Your task to perform on an android device: Add corsair k70 to the cart on walmart.com, then select checkout. Image 0: 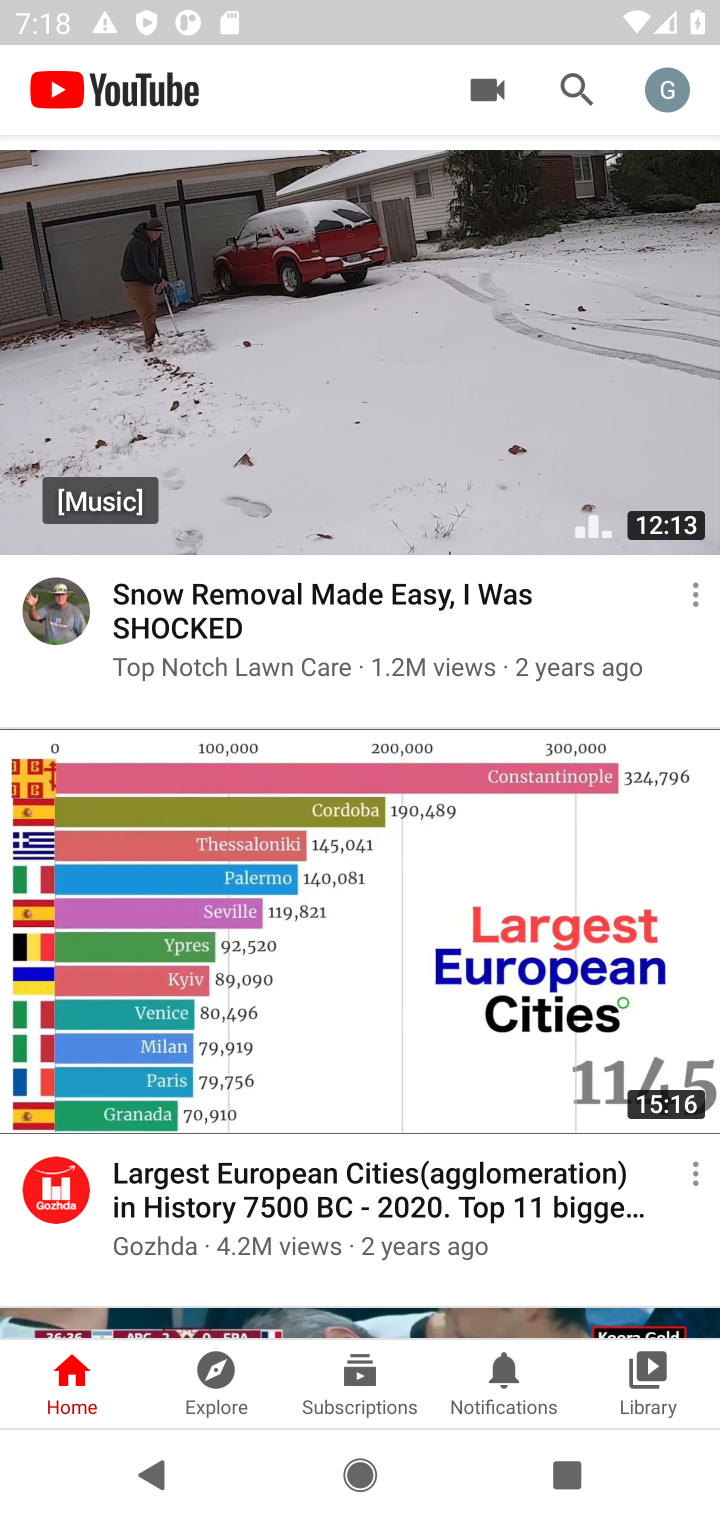
Step 0: press home button
Your task to perform on an android device: Add corsair k70 to the cart on walmart.com, then select checkout. Image 1: 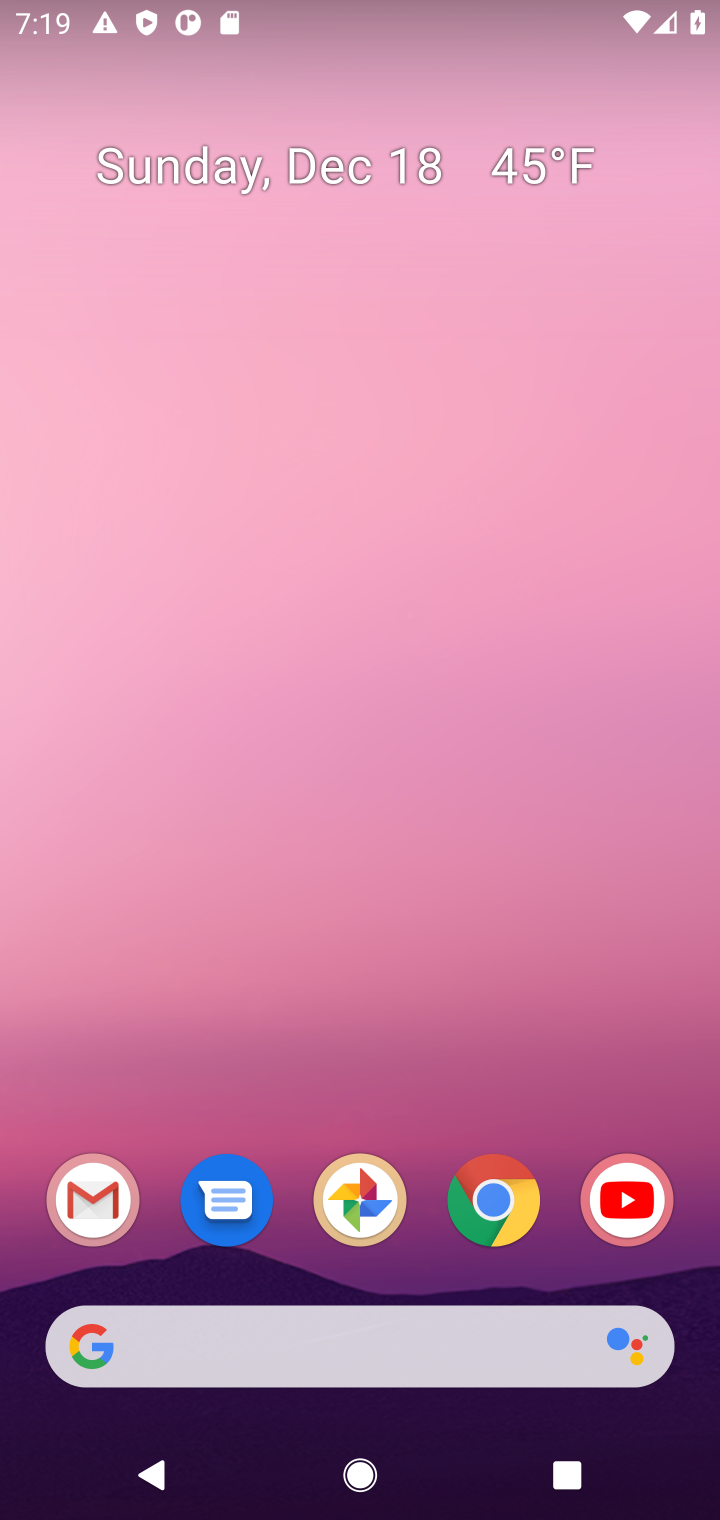
Step 1: click (502, 1210)
Your task to perform on an android device: Add corsair k70 to the cart on walmart.com, then select checkout. Image 2: 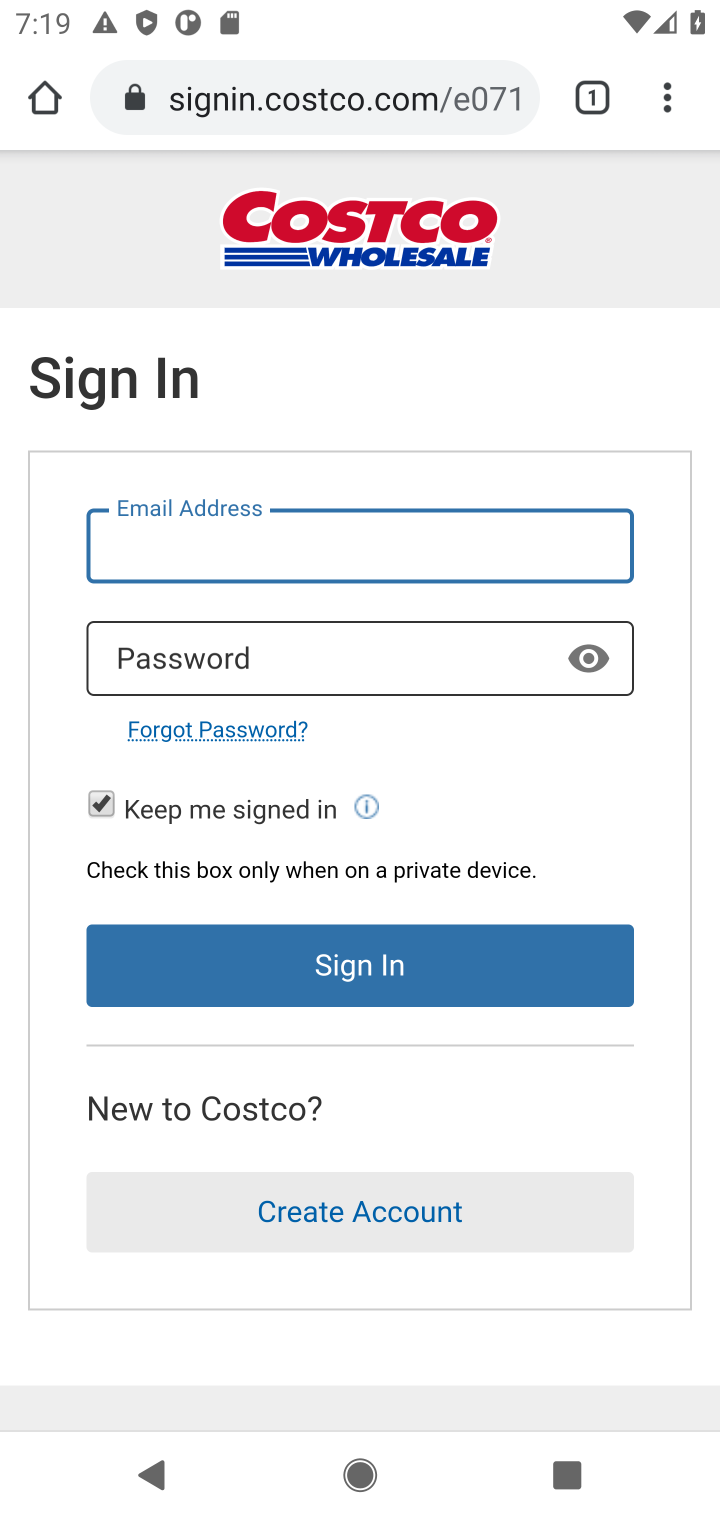
Step 2: click (291, 98)
Your task to perform on an android device: Add corsair k70 to the cart on walmart.com, then select checkout. Image 3: 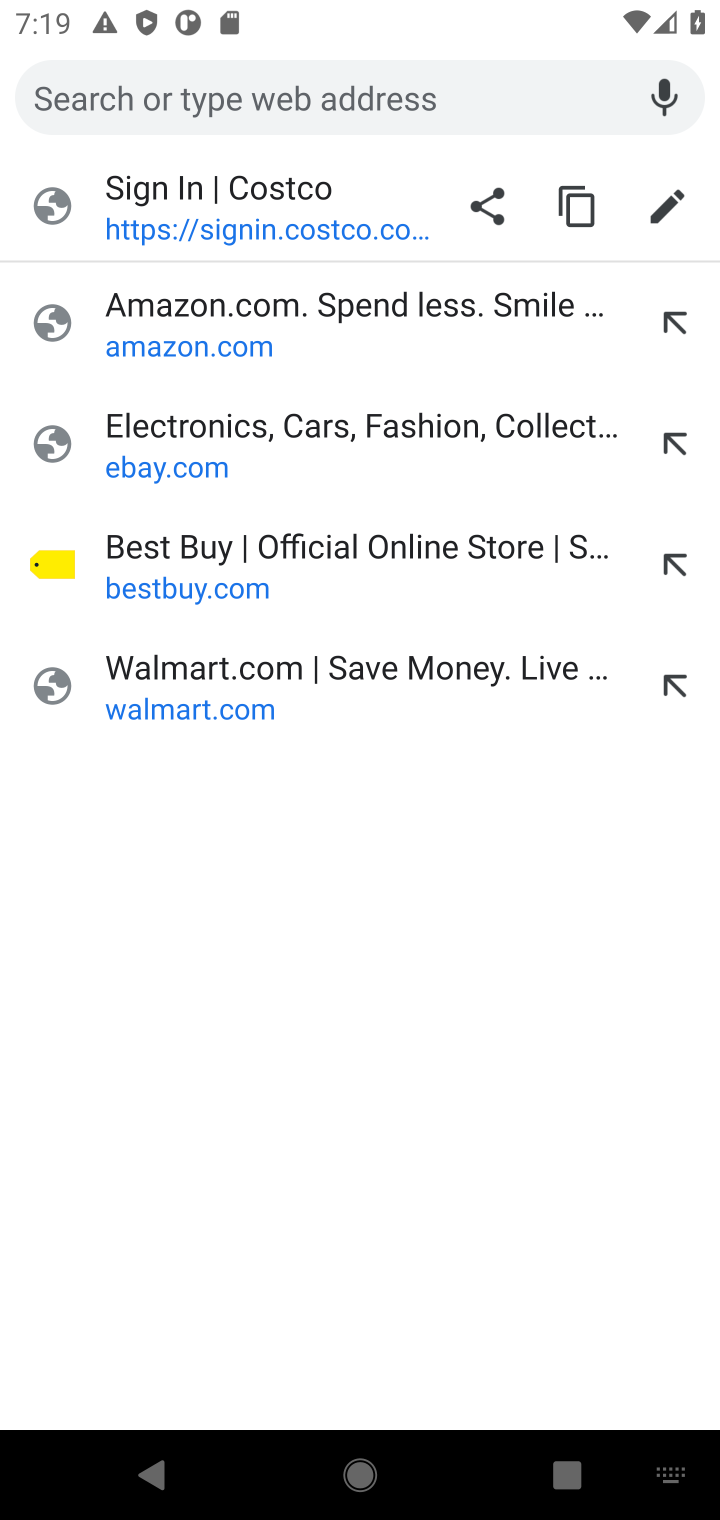
Step 3: click (168, 693)
Your task to perform on an android device: Add corsair k70 to the cart on walmart.com, then select checkout. Image 4: 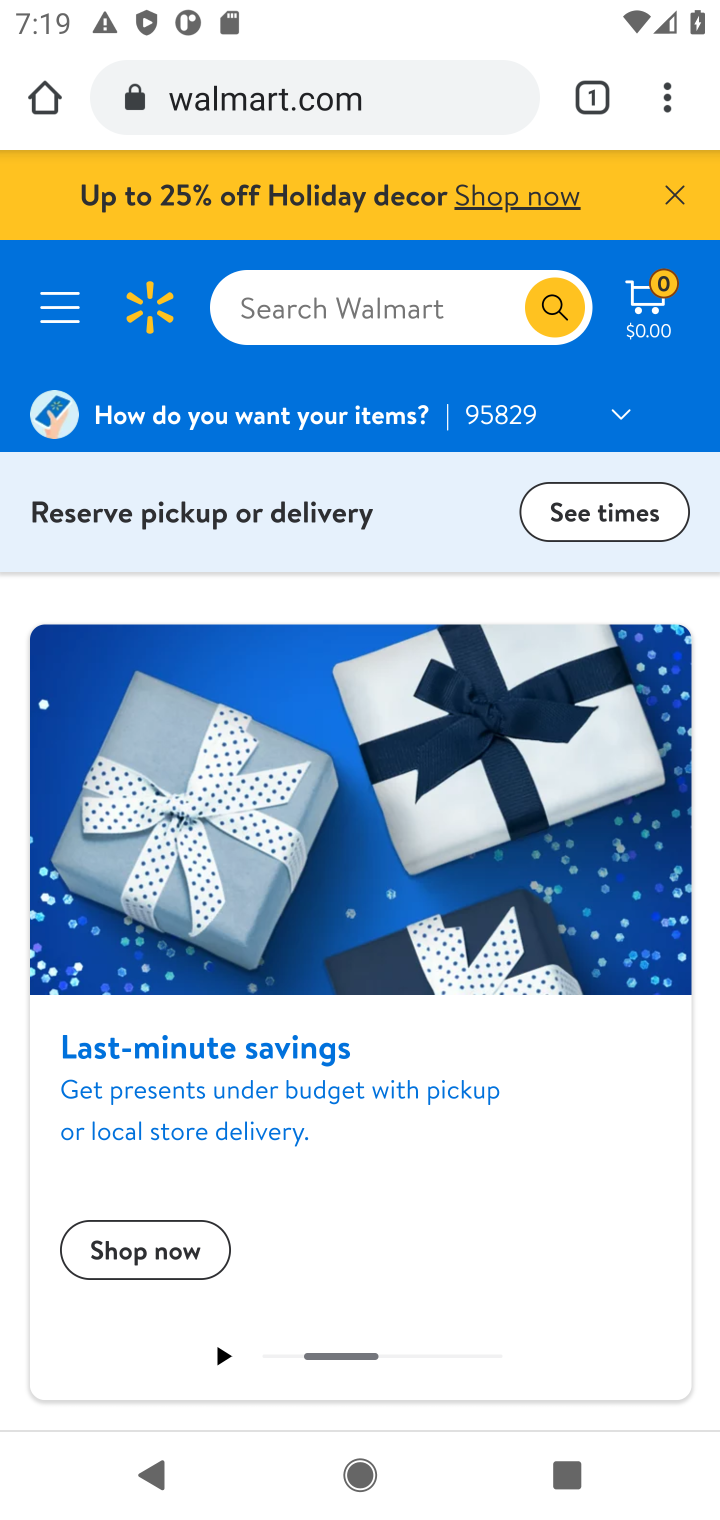
Step 4: click (306, 324)
Your task to perform on an android device: Add corsair k70 to the cart on walmart.com, then select checkout. Image 5: 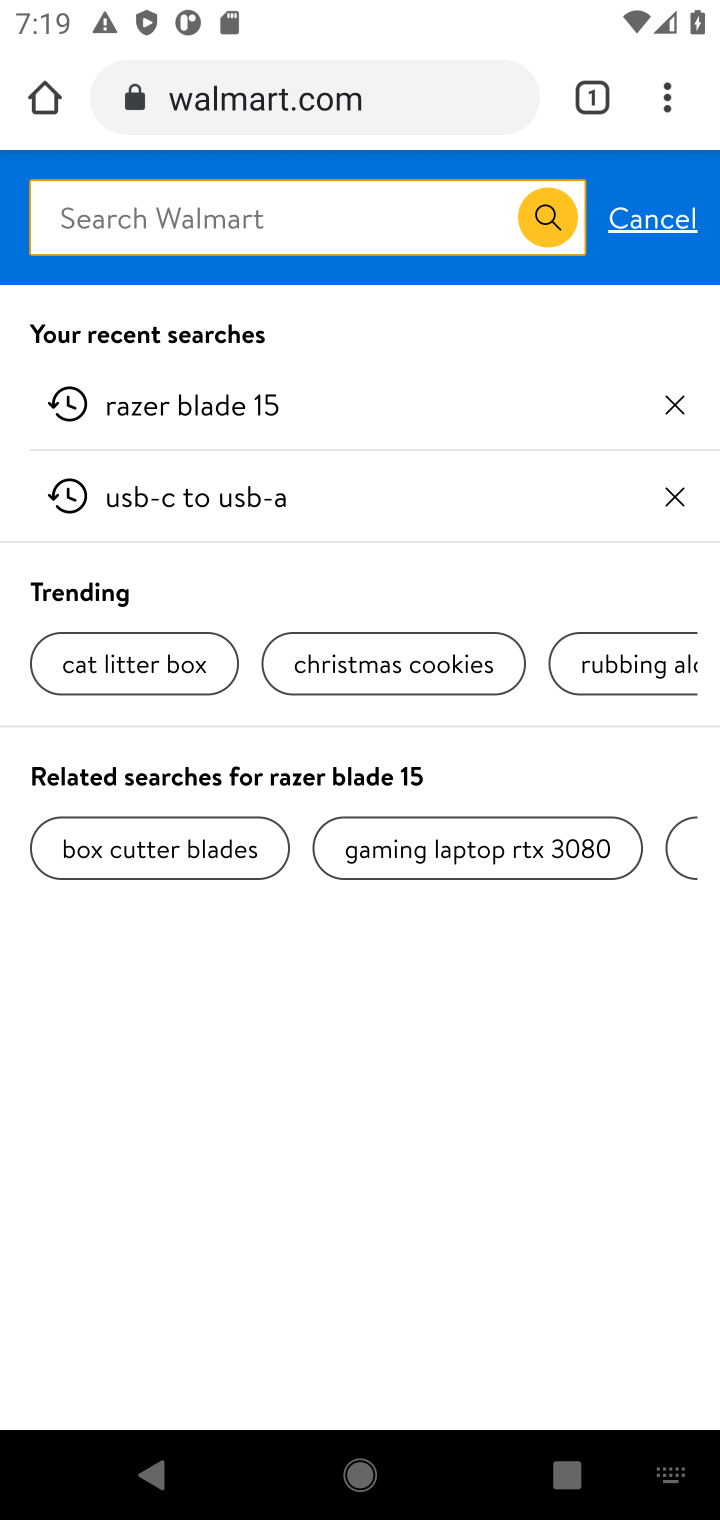
Step 5: type "corsair k70"
Your task to perform on an android device: Add corsair k70 to the cart on walmart.com, then select checkout. Image 6: 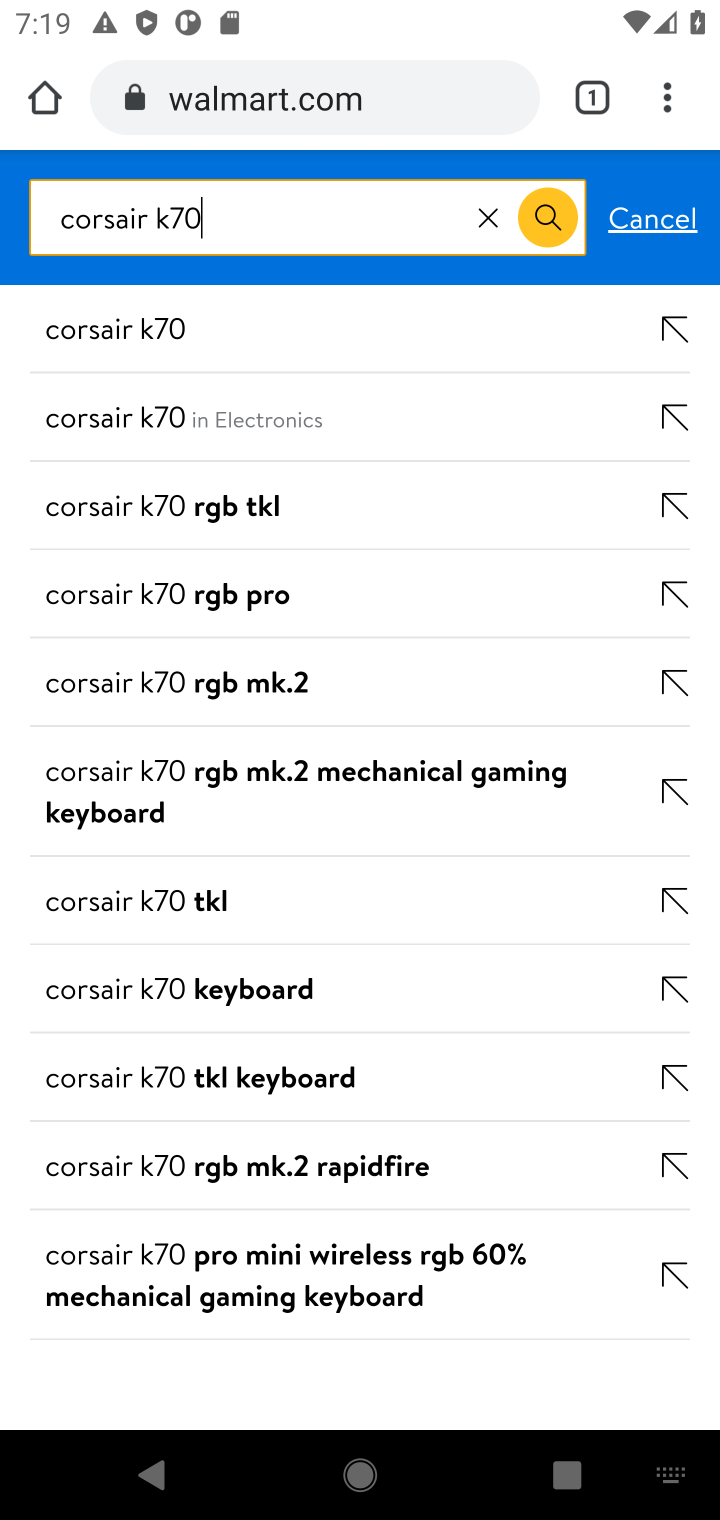
Step 6: click (132, 319)
Your task to perform on an android device: Add corsair k70 to the cart on walmart.com, then select checkout. Image 7: 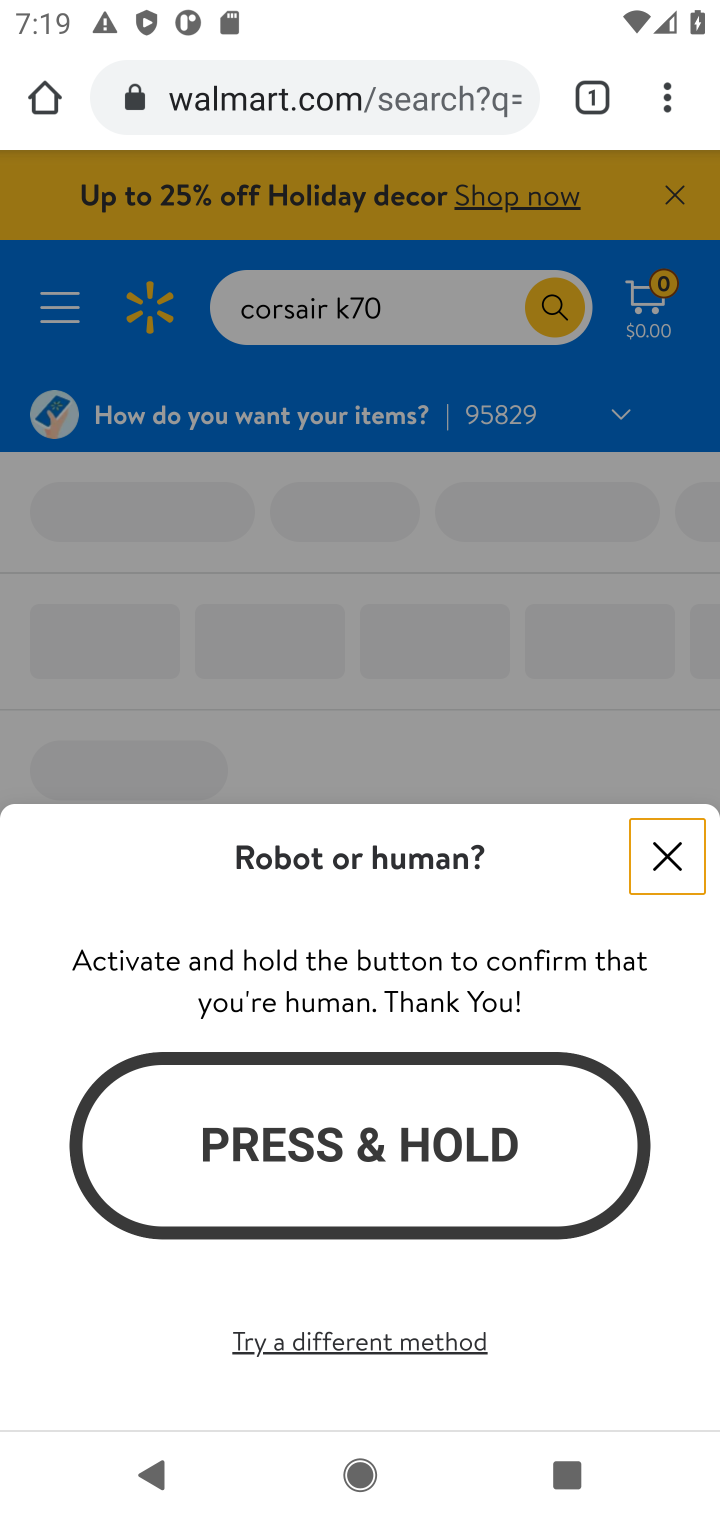
Step 7: click (319, 1344)
Your task to perform on an android device: Add corsair k70 to the cart on walmart.com, then select checkout. Image 8: 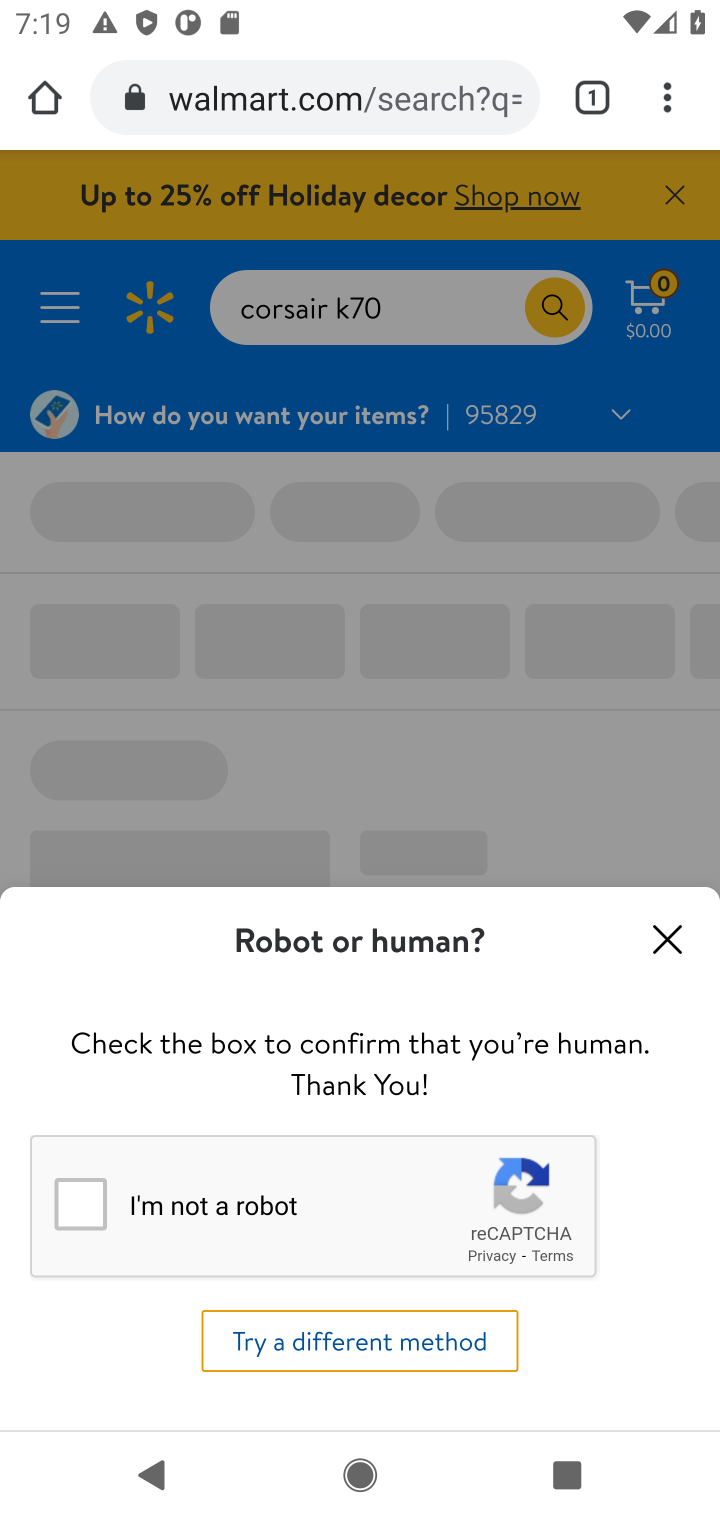
Step 8: click (85, 1211)
Your task to perform on an android device: Add corsair k70 to the cart on walmart.com, then select checkout. Image 9: 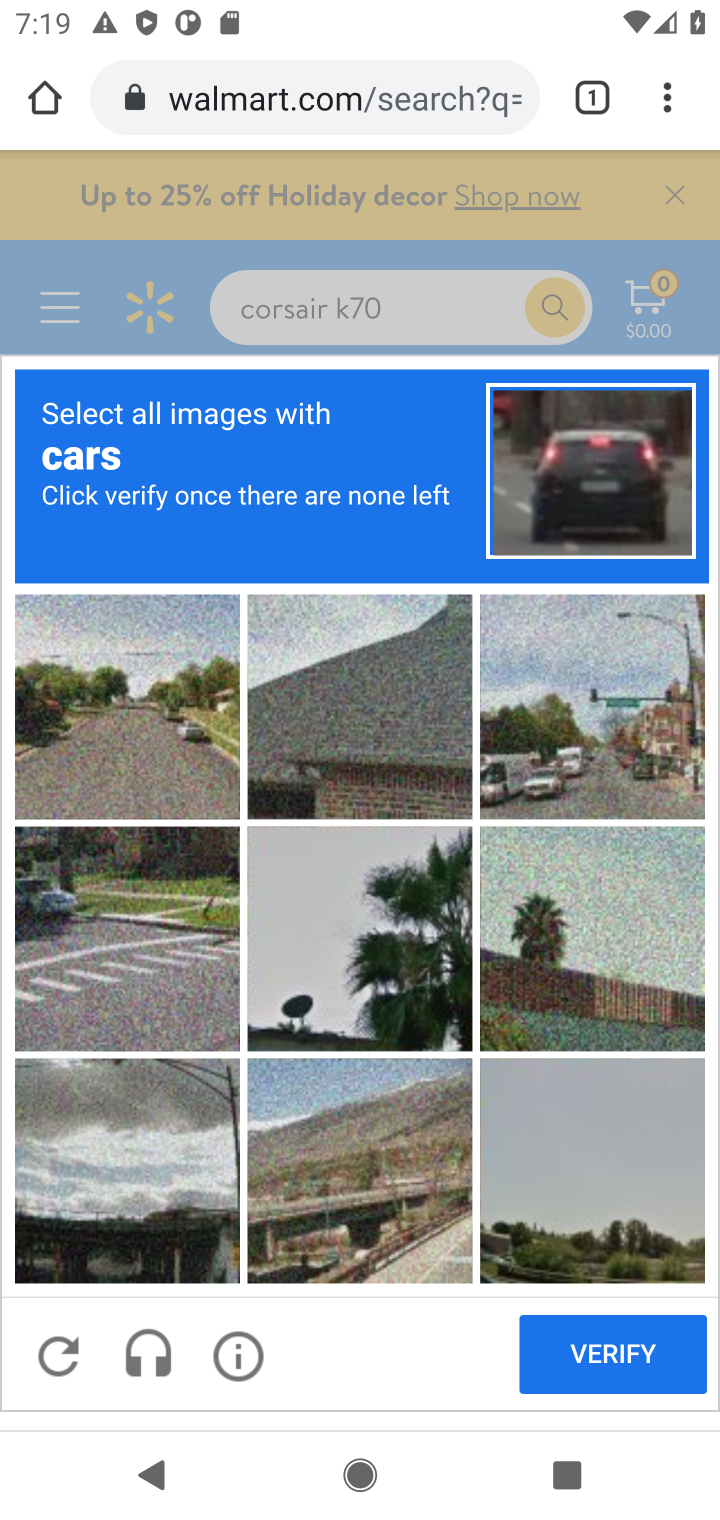
Step 9: click (125, 714)
Your task to perform on an android device: Add corsair k70 to the cart on walmart.com, then select checkout. Image 10: 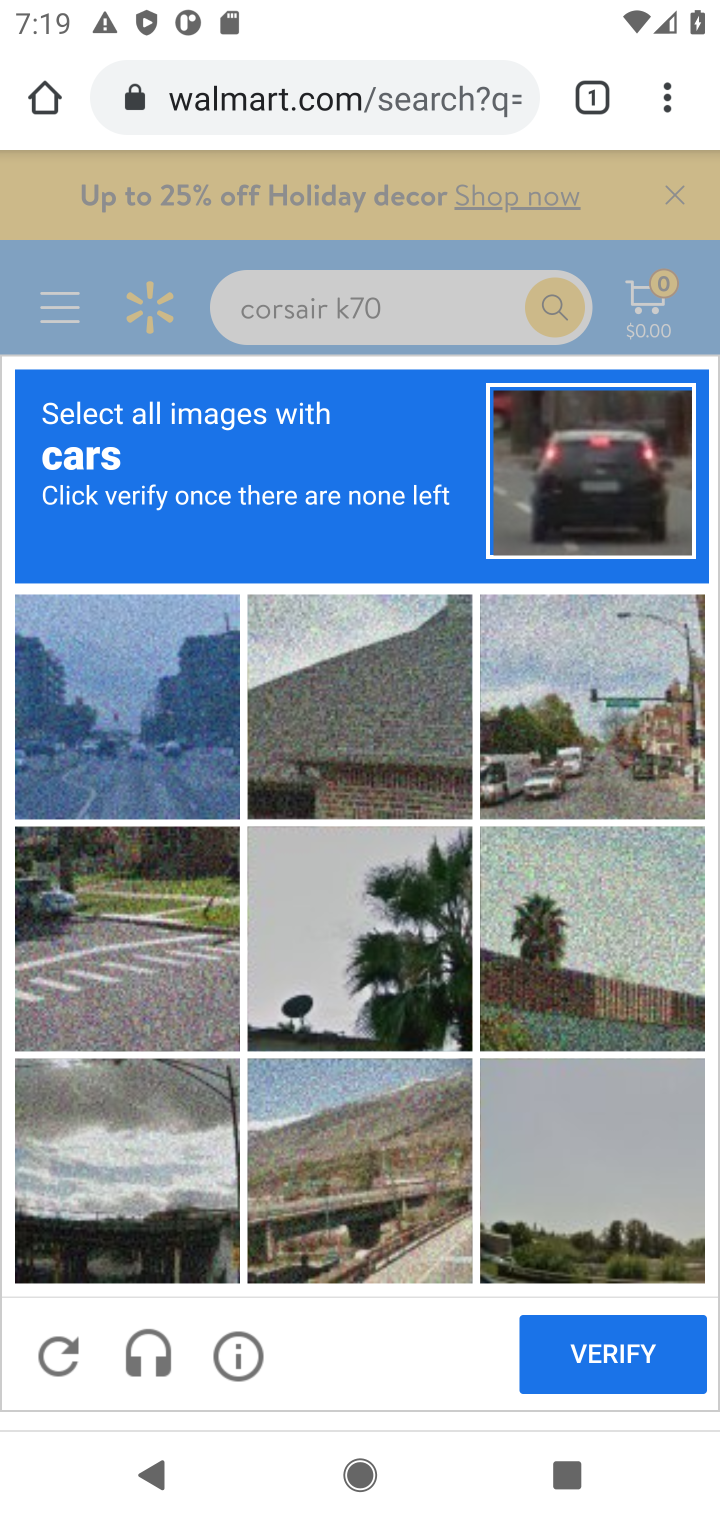
Step 10: click (578, 783)
Your task to perform on an android device: Add corsair k70 to the cart on walmart.com, then select checkout. Image 11: 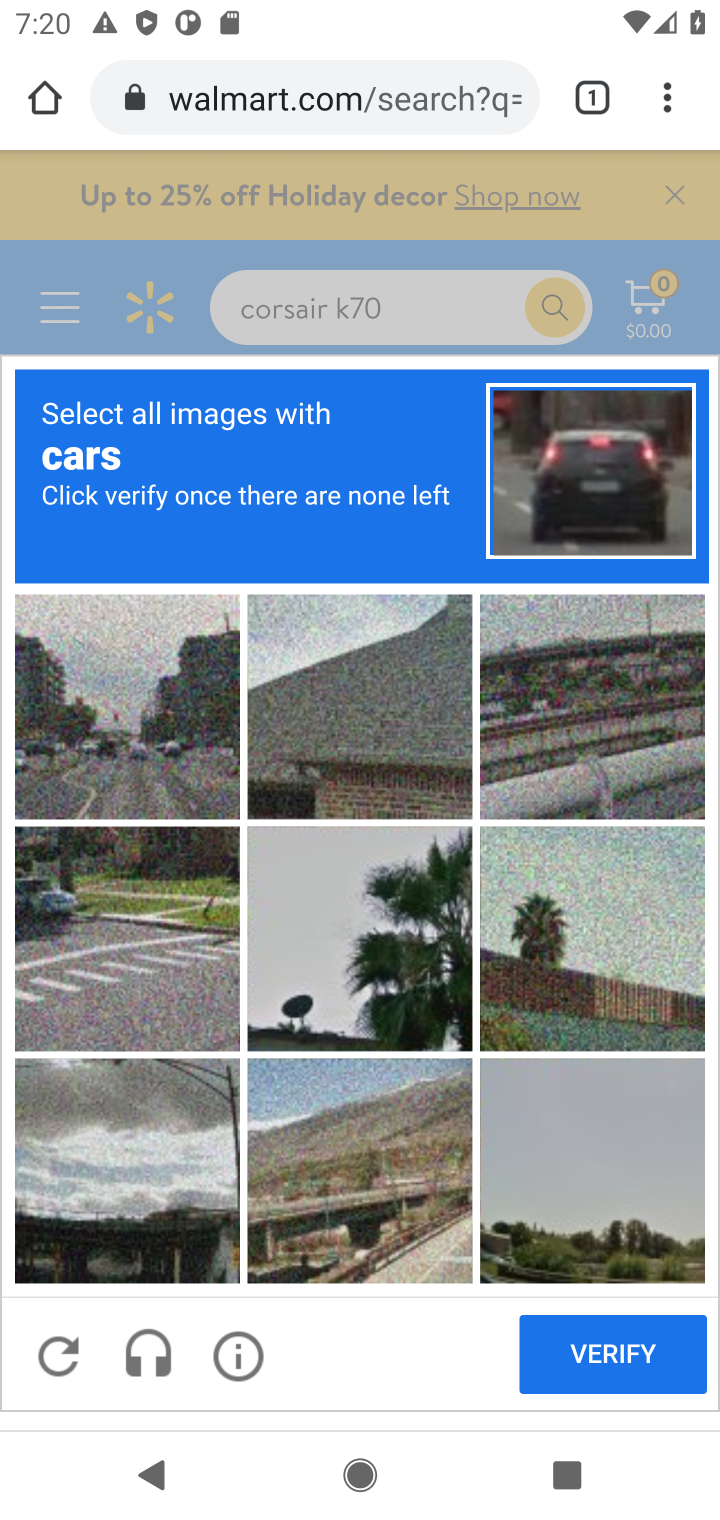
Step 11: click (87, 1002)
Your task to perform on an android device: Add corsair k70 to the cart on walmart.com, then select checkout. Image 12: 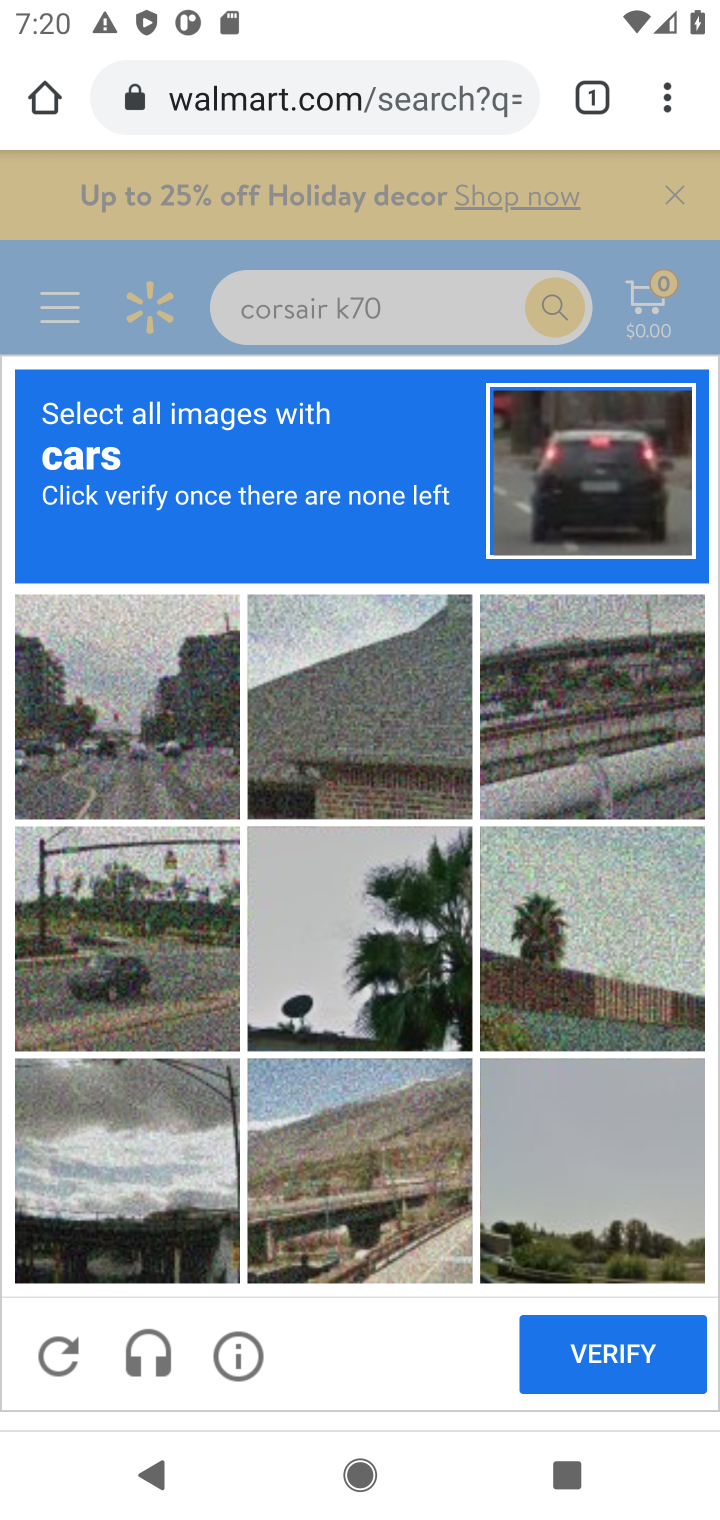
Step 12: click (100, 719)
Your task to perform on an android device: Add corsair k70 to the cart on walmart.com, then select checkout. Image 13: 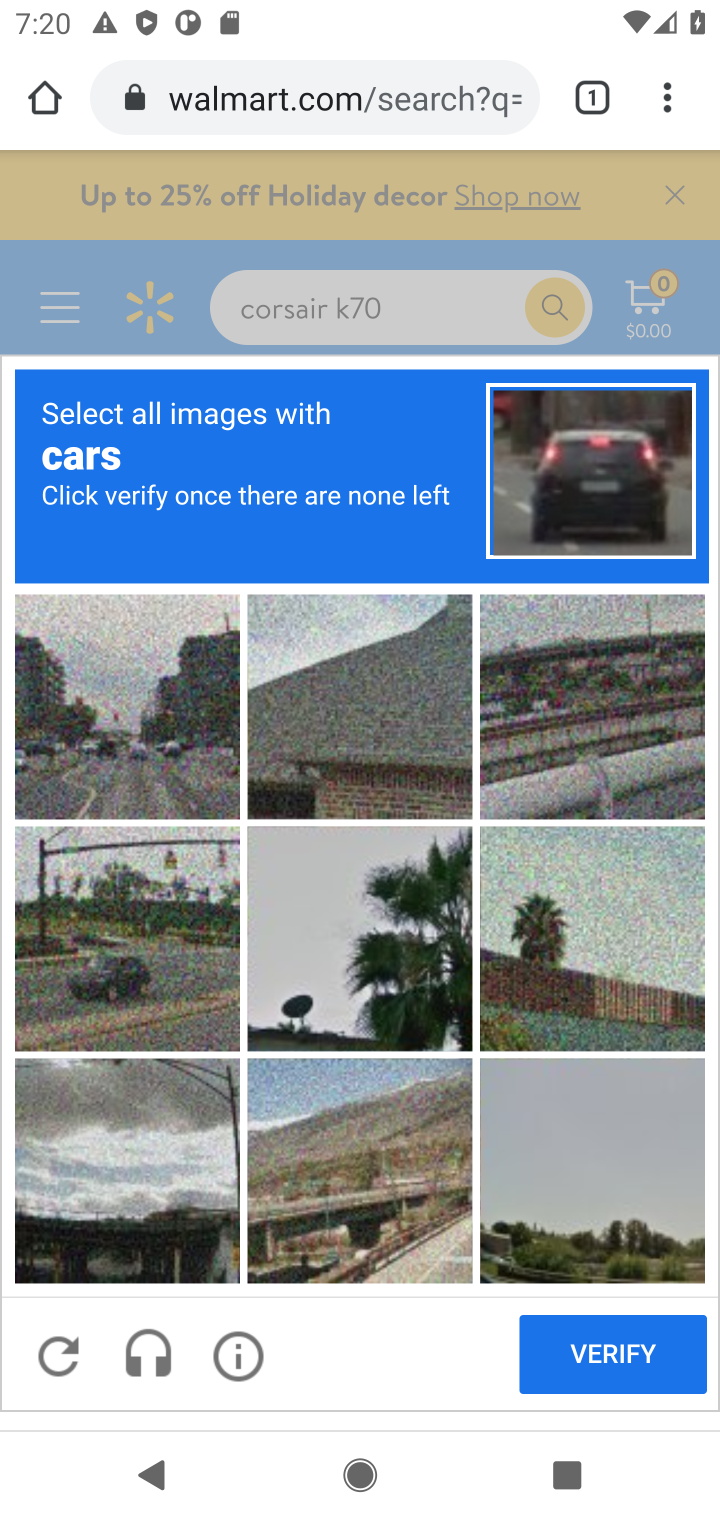
Step 13: click (125, 780)
Your task to perform on an android device: Add corsair k70 to the cart on walmart.com, then select checkout. Image 14: 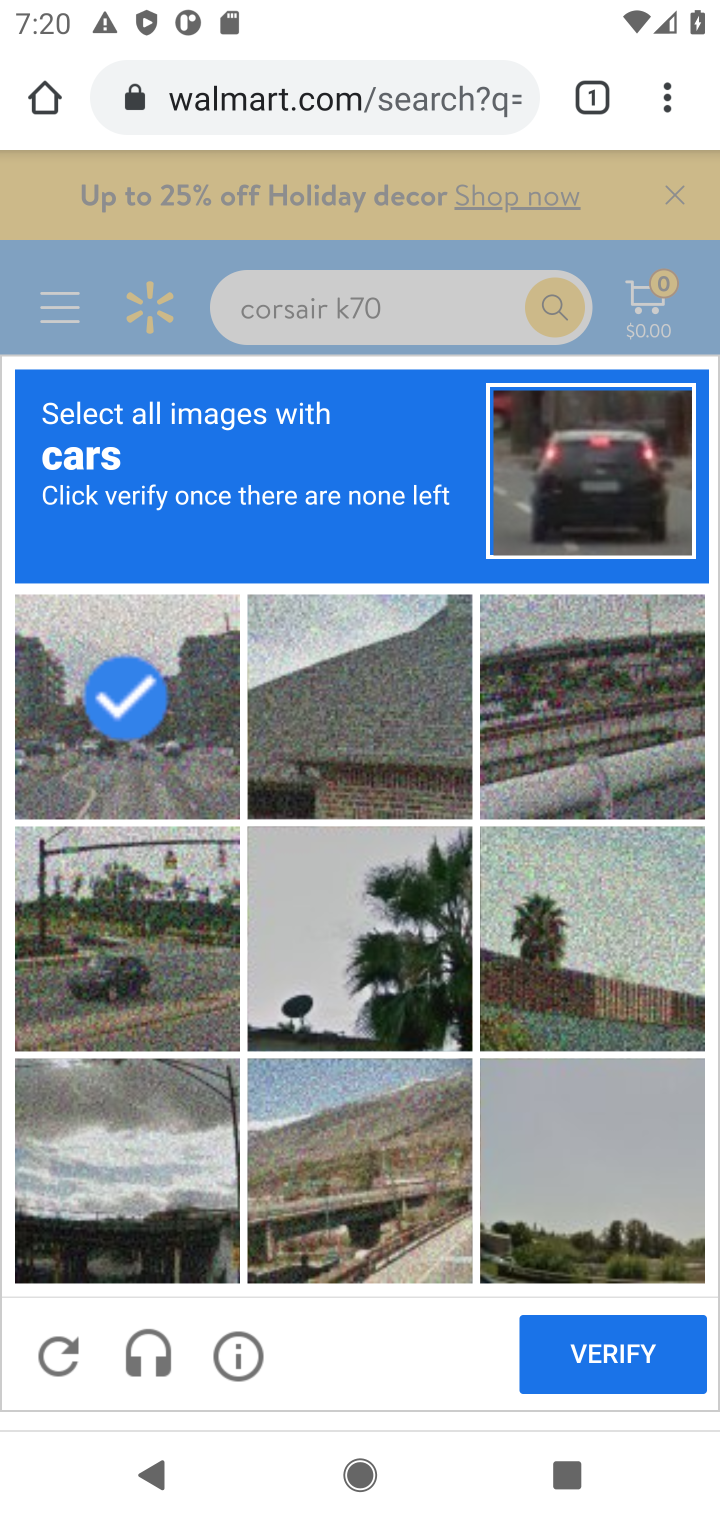
Step 14: click (133, 949)
Your task to perform on an android device: Add corsair k70 to the cart on walmart.com, then select checkout. Image 15: 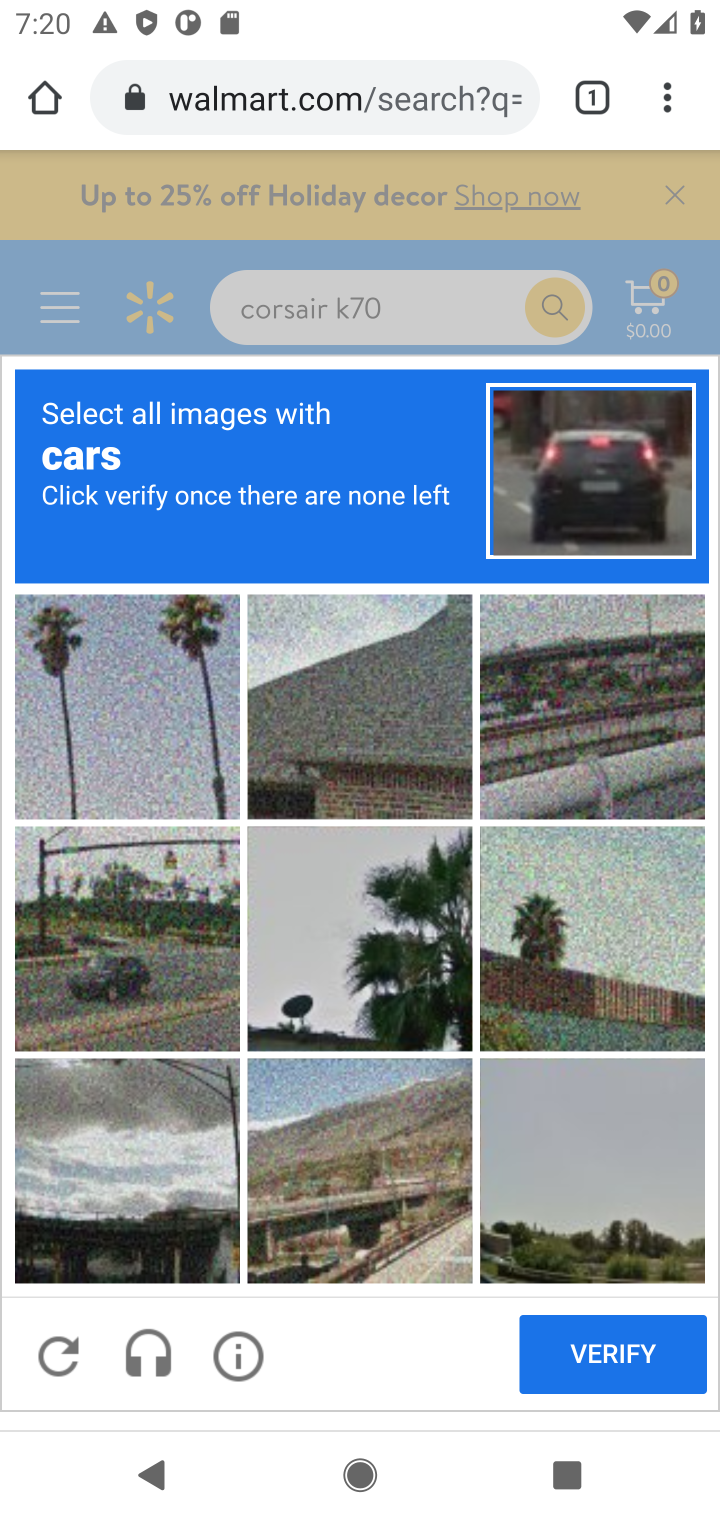
Step 15: click (120, 1000)
Your task to perform on an android device: Add corsair k70 to the cart on walmart.com, then select checkout. Image 16: 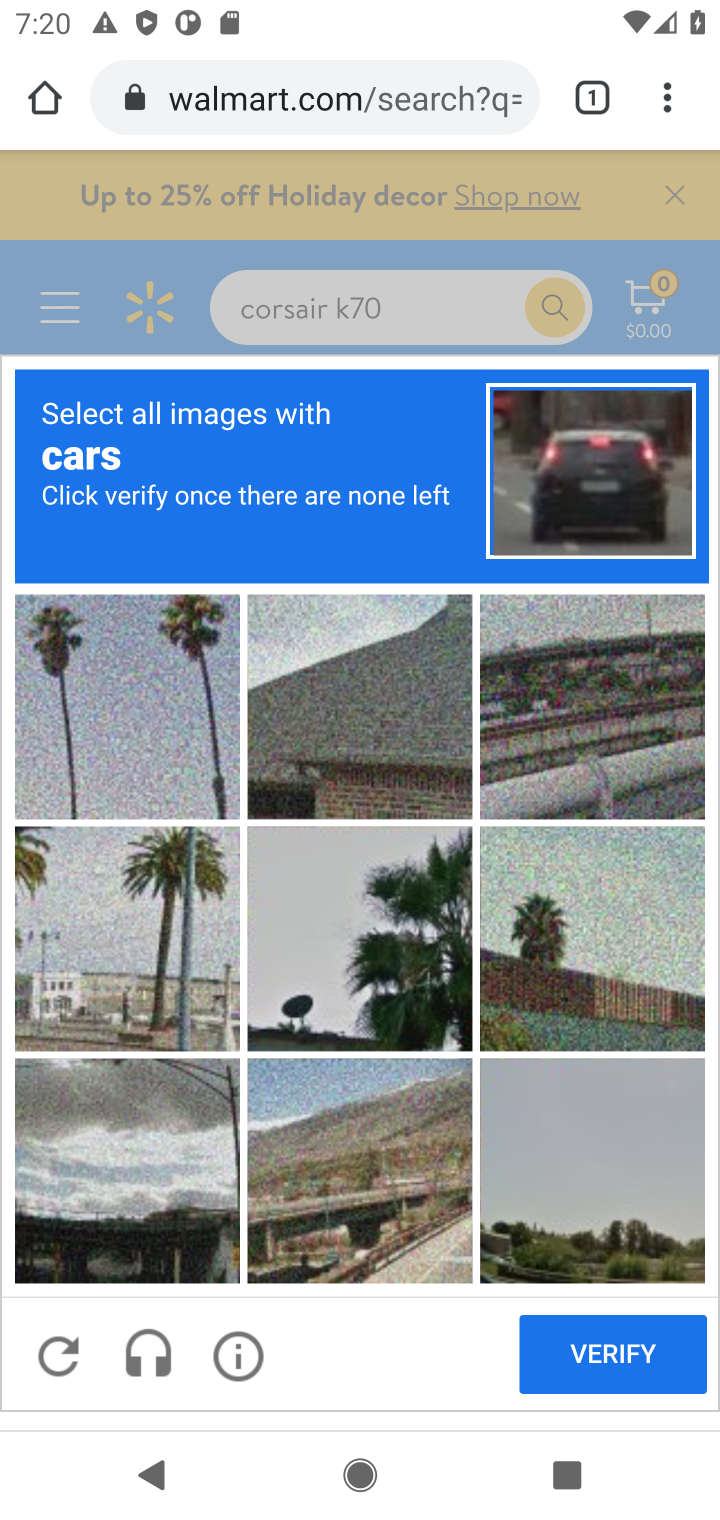
Step 16: click (628, 1366)
Your task to perform on an android device: Add corsair k70 to the cart on walmart.com, then select checkout. Image 17: 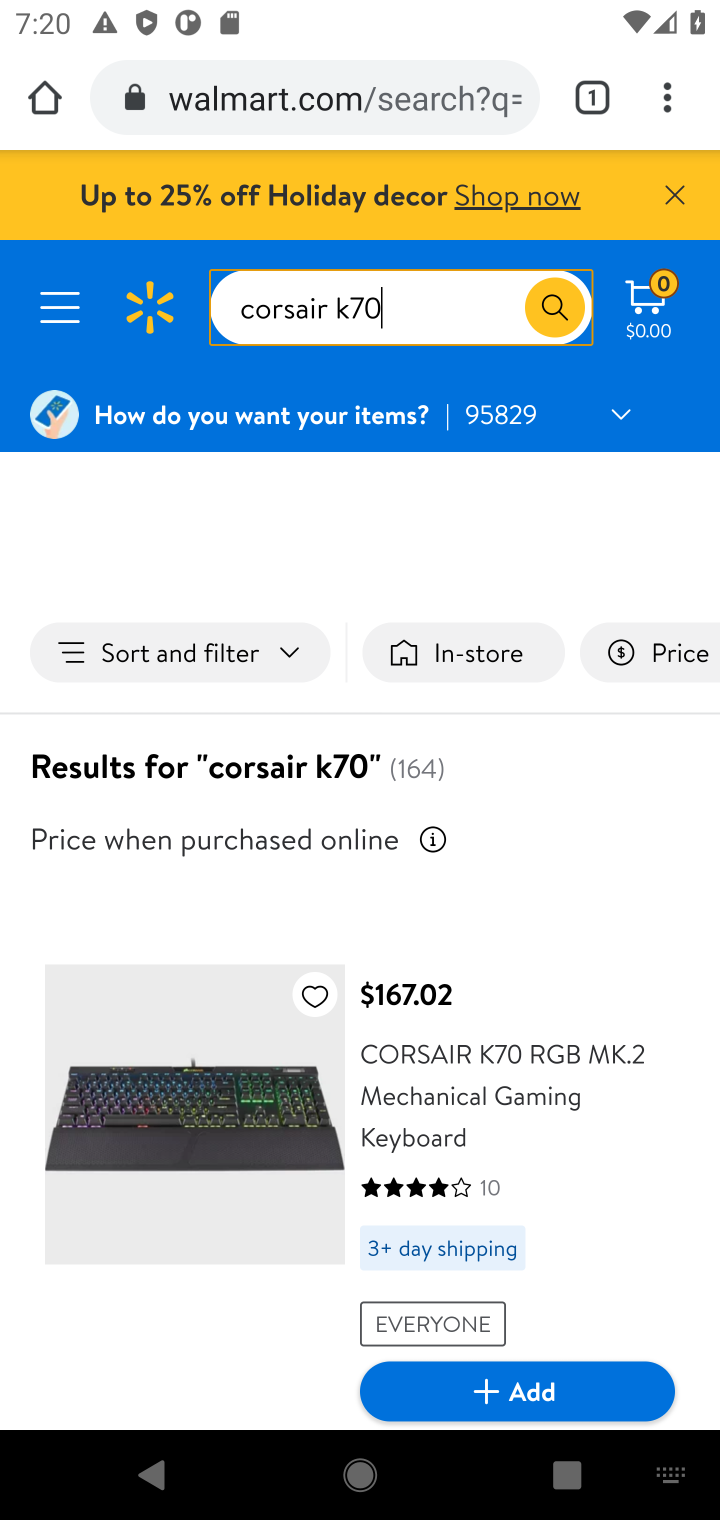
Step 17: drag from (453, 1055) to (439, 646)
Your task to perform on an android device: Add corsair k70 to the cart on walmart.com, then select checkout. Image 18: 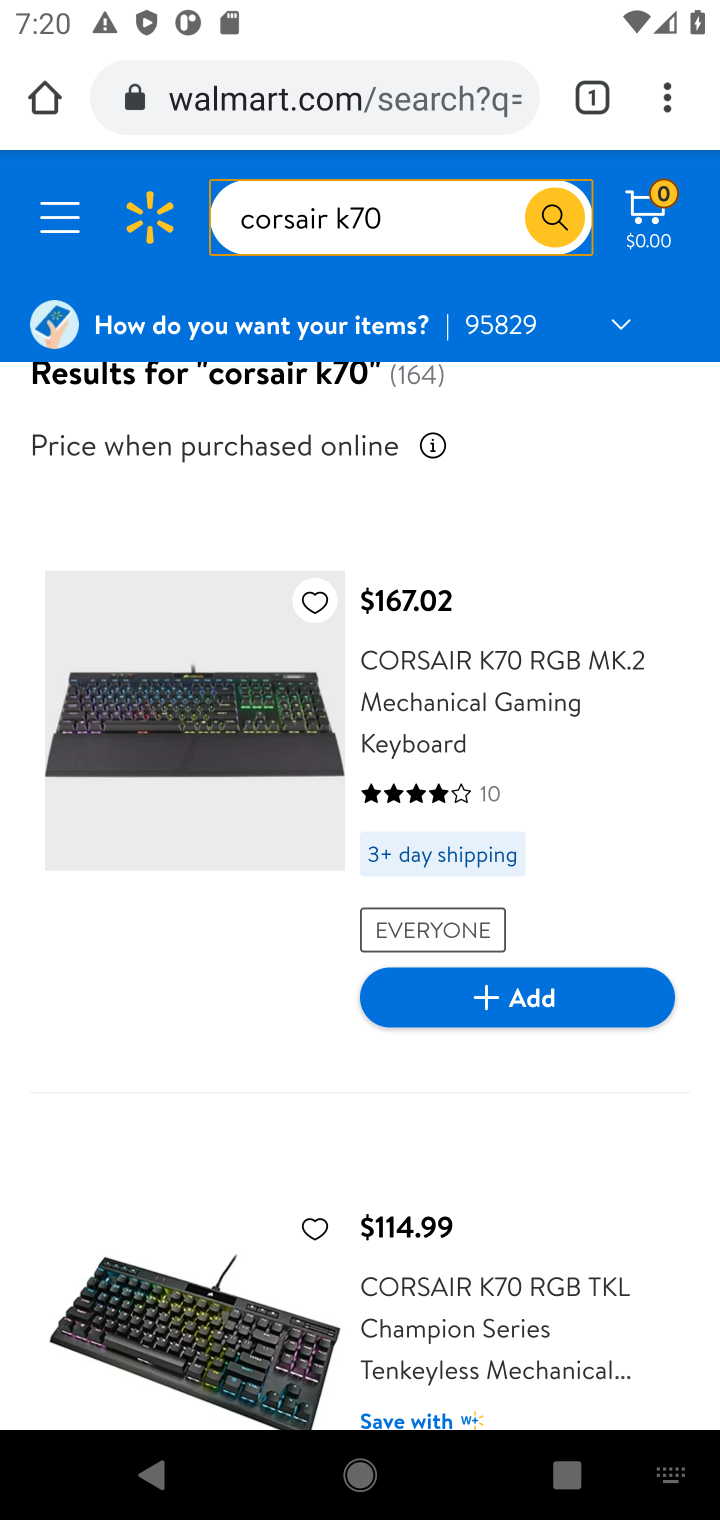
Step 18: click (531, 992)
Your task to perform on an android device: Add corsair k70 to the cart on walmart.com, then select checkout. Image 19: 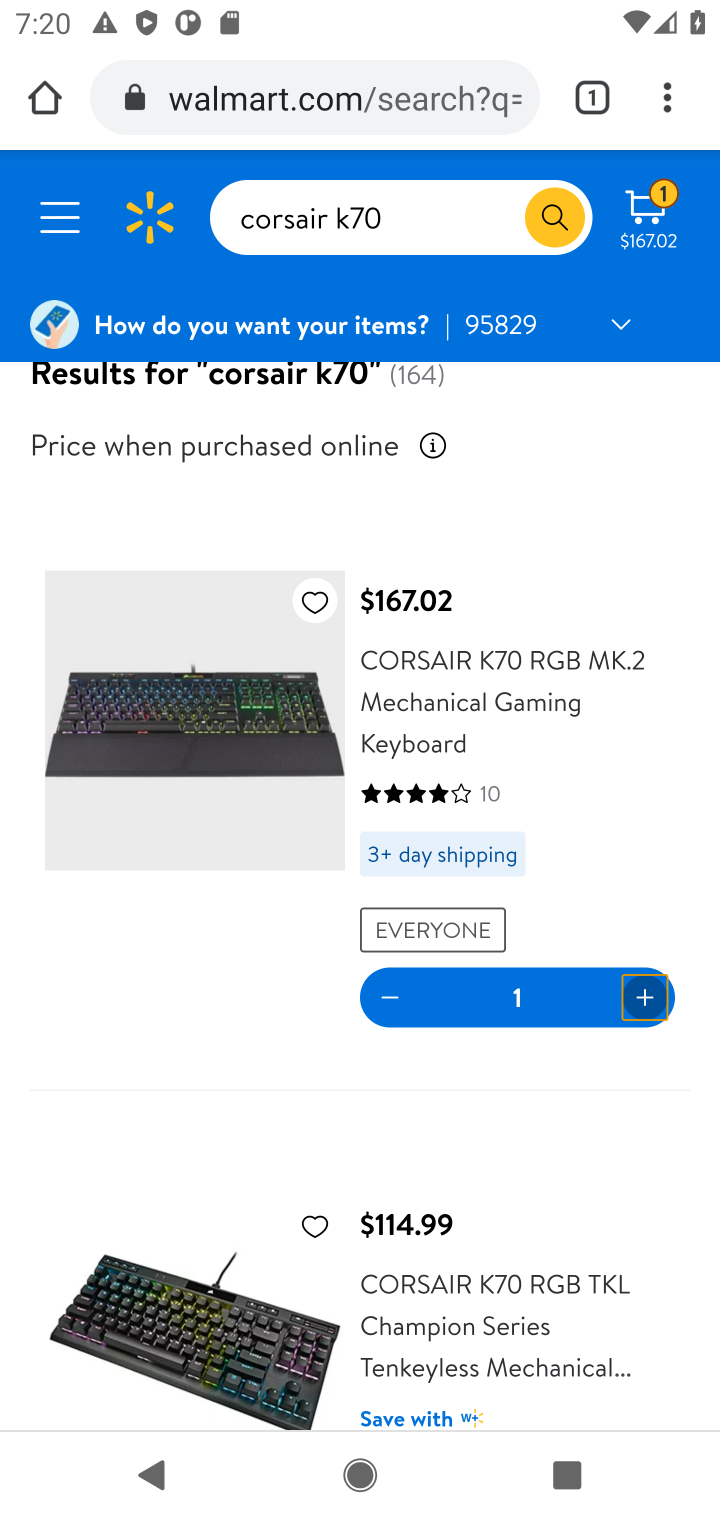
Step 19: click (645, 226)
Your task to perform on an android device: Add corsair k70 to the cart on walmart.com, then select checkout. Image 20: 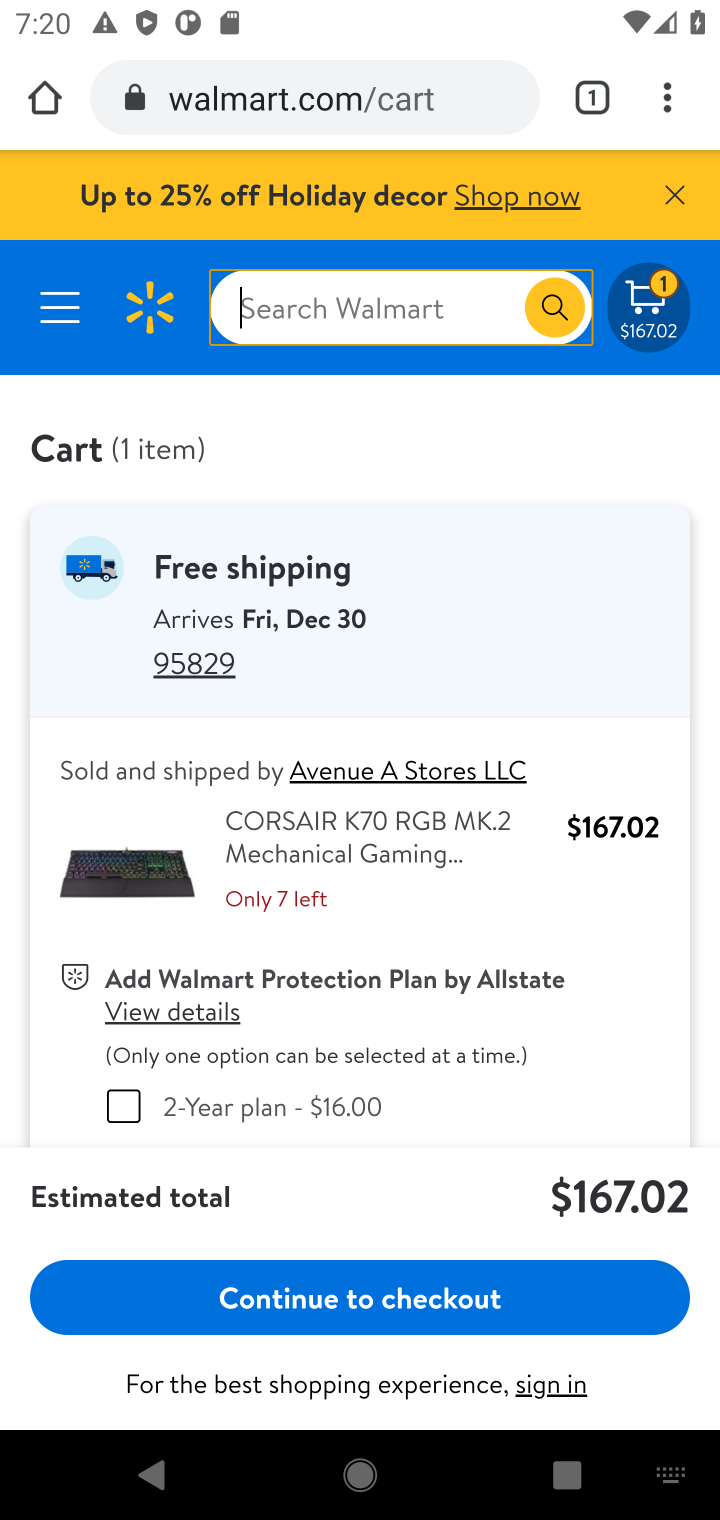
Step 20: click (344, 1304)
Your task to perform on an android device: Add corsair k70 to the cart on walmart.com, then select checkout. Image 21: 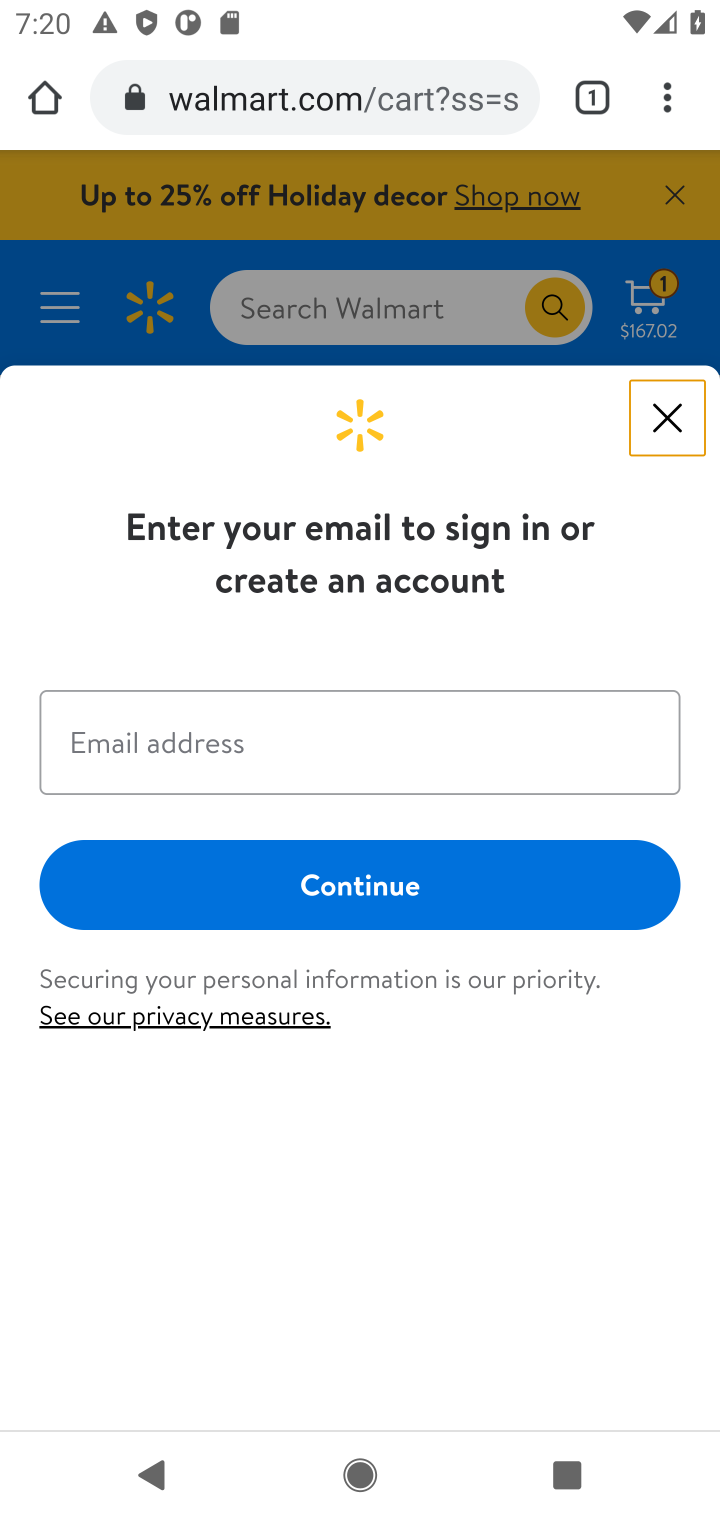
Step 21: task complete